Your task to perform on an android device: turn on the 12-hour format for clock Image 0: 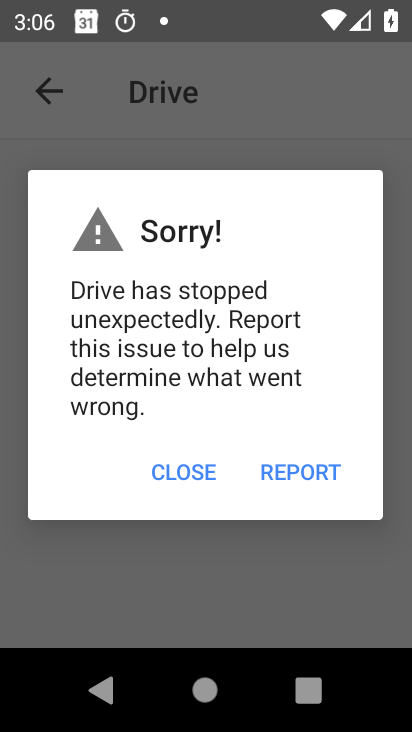
Step 0: press home button
Your task to perform on an android device: turn on the 12-hour format for clock Image 1: 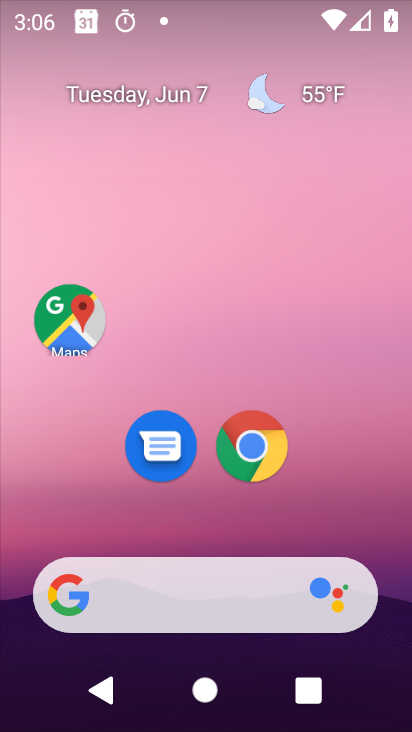
Step 1: drag from (207, 521) to (231, 16)
Your task to perform on an android device: turn on the 12-hour format for clock Image 2: 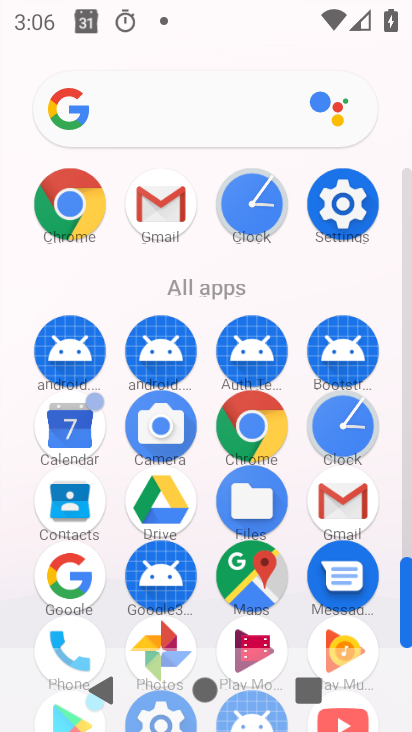
Step 2: click (346, 198)
Your task to perform on an android device: turn on the 12-hour format for clock Image 3: 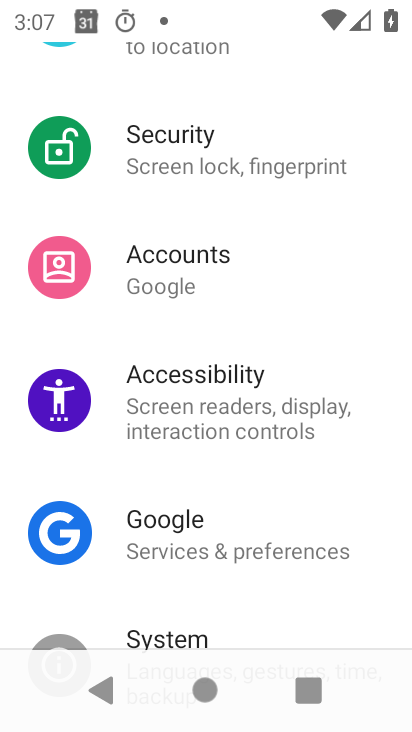
Step 3: drag from (235, 539) to (290, 121)
Your task to perform on an android device: turn on the 12-hour format for clock Image 4: 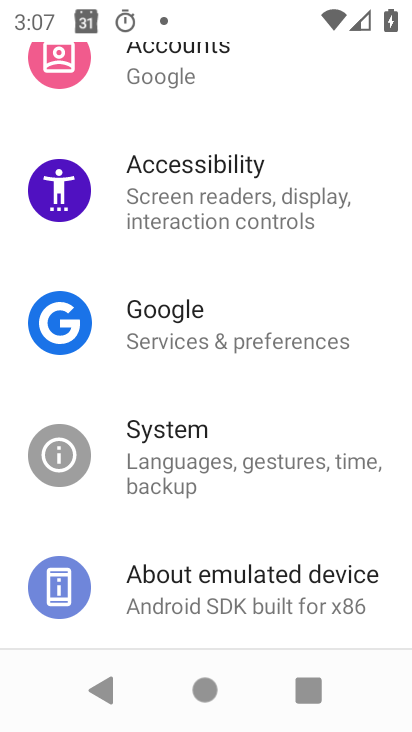
Step 4: drag from (225, 559) to (257, 173)
Your task to perform on an android device: turn on the 12-hour format for clock Image 5: 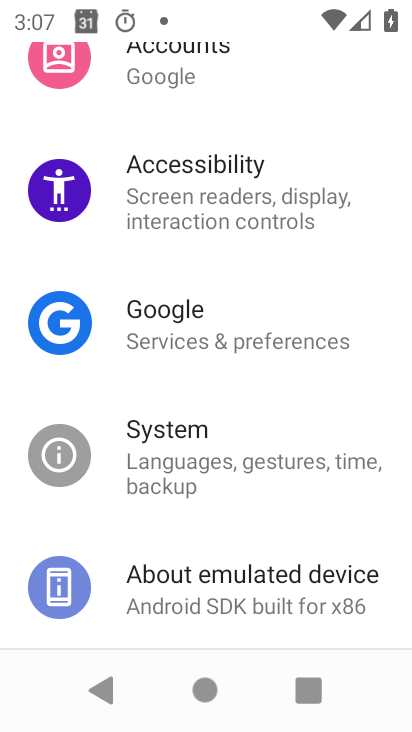
Step 5: drag from (226, 556) to (284, 107)
Your task to perform on an android device: turn on the 12-hour format for clock Image 6: 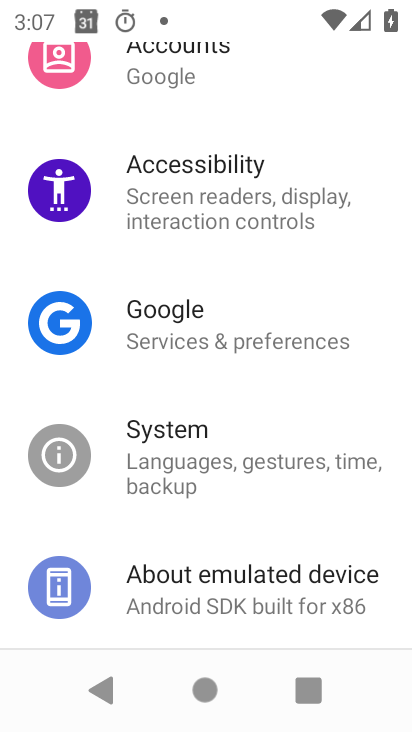
Step 6: click (181, 452)
Your task to perform on an android device: turn on the 12-hour format for clock Image 7: 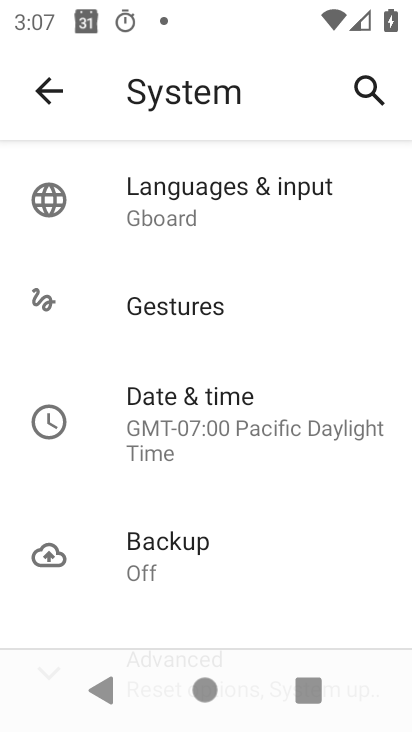
Step 7: drag from (228, 572) to (237, 499)
Your task to perform on an android device: turn on the 12-hour format for clock Image 8: 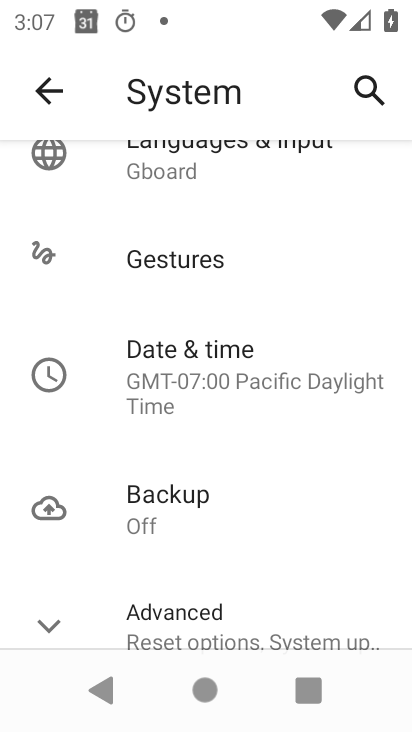
Step 8: click (211, 381)
Your task to perform on an android device: turn on the 12-hour format for clock Image 9: 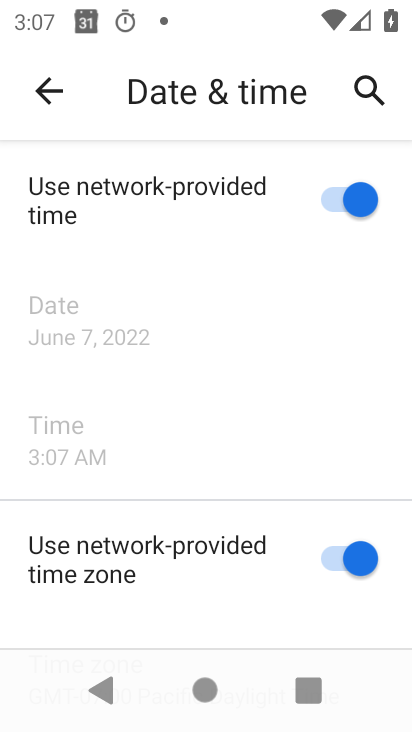
Step 9: task complete